Your task to perform on an android device: Open the phone app and click the voicemail tab. Image 0: 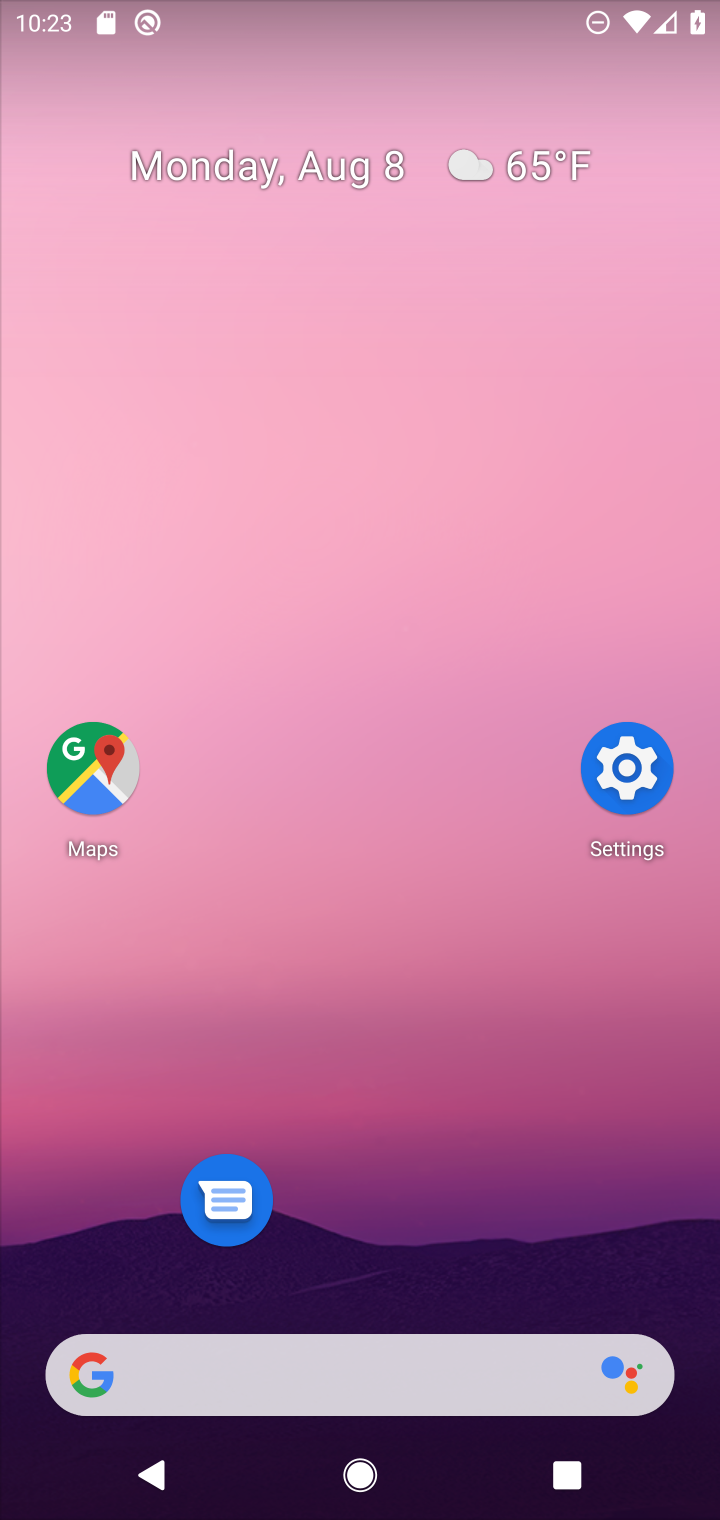
Step 0: press home button
Your task to perform on an android device: Open the phone app and click the voicemail tab. Image 1: 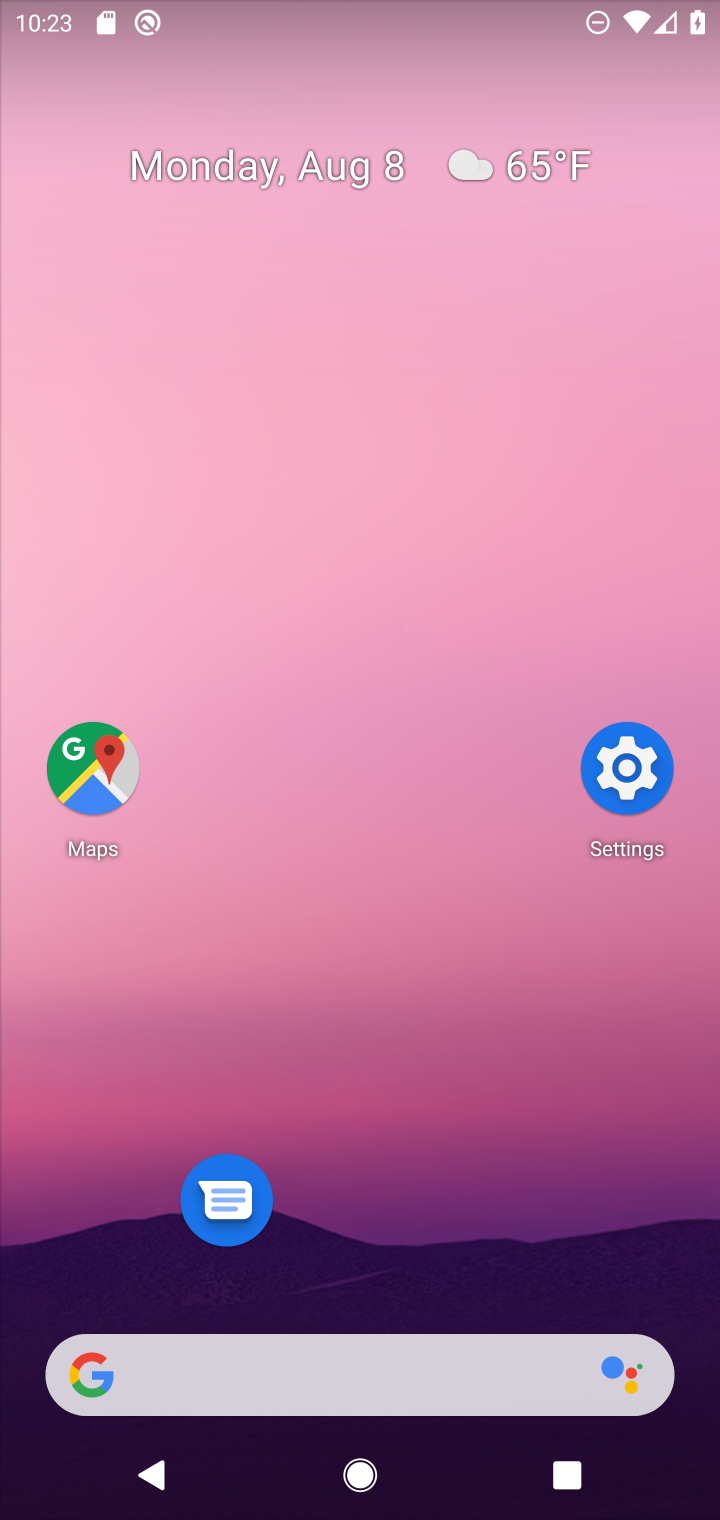
Step 1: drag from (399, 1241) to (569, 259)
Your task to perform on an android device: Open the phone app and click the voicemail tab. Image 2: 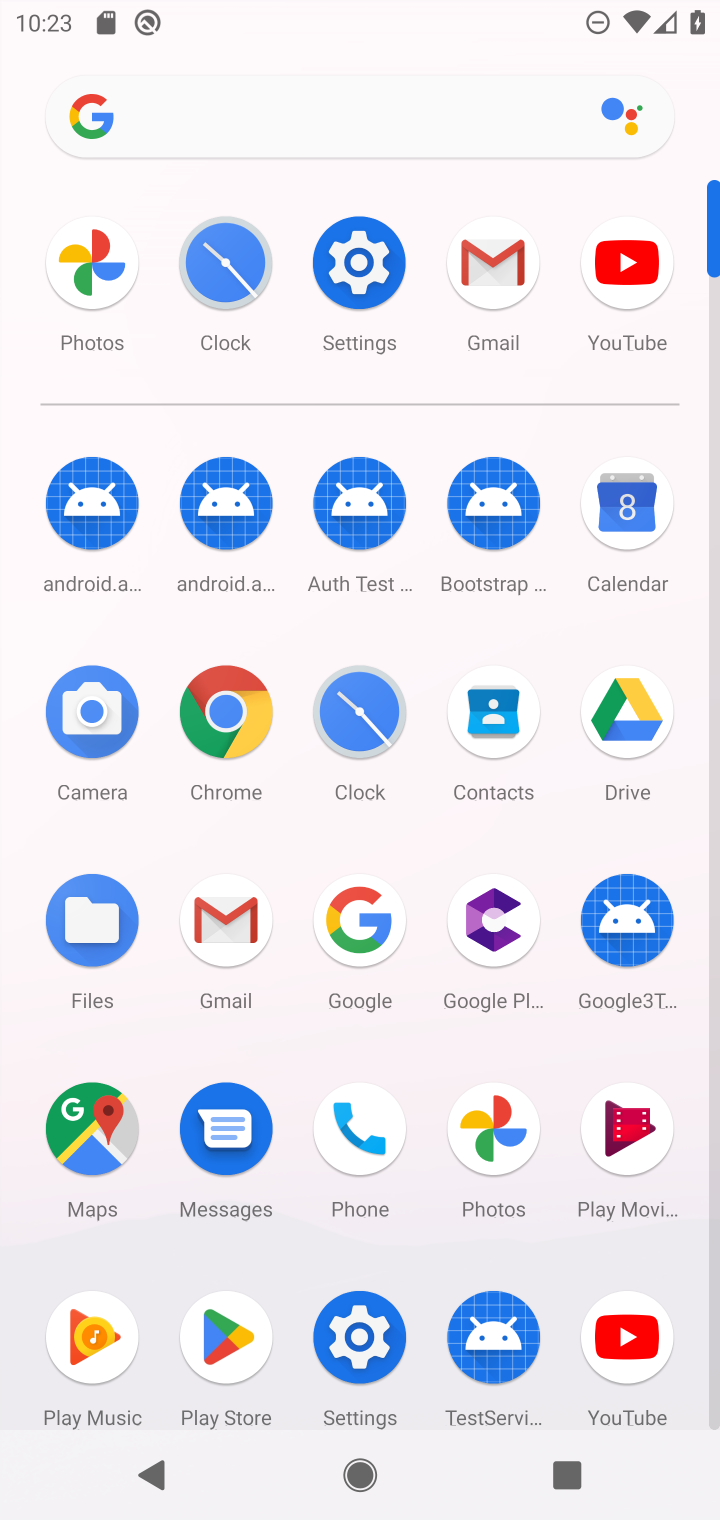
Step 2: click (348, 1127)
Your task to perform on an android device: Open the phone app and click the voicemail tab. Image 3: 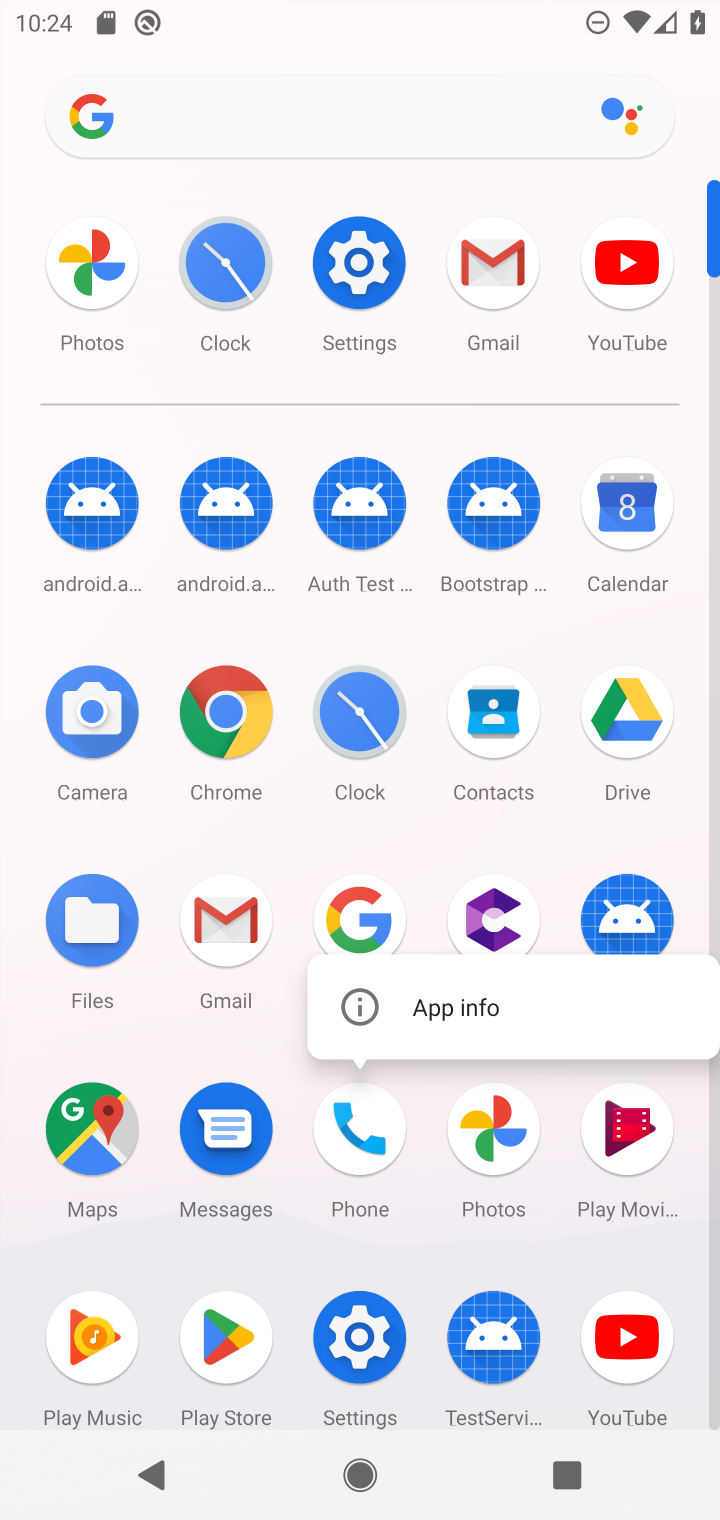
Step 3: click (348, 1124)
Your task to perform on an android device: Open the phone app and click the voicemail tab. Image 4: 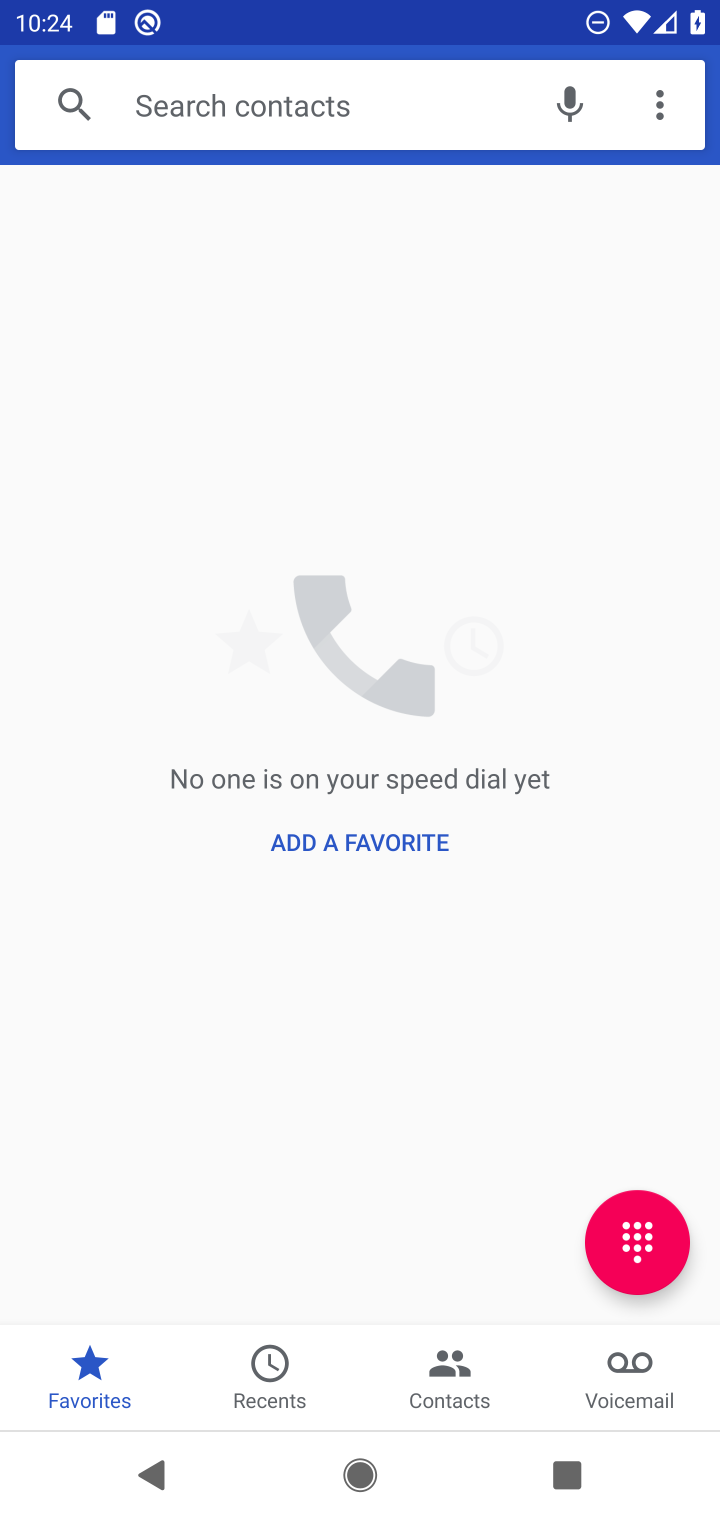
Step 4: click (619, 1378)
Your task to perform on an android device: Open the phone app and click the voicemail tab. Image 5: 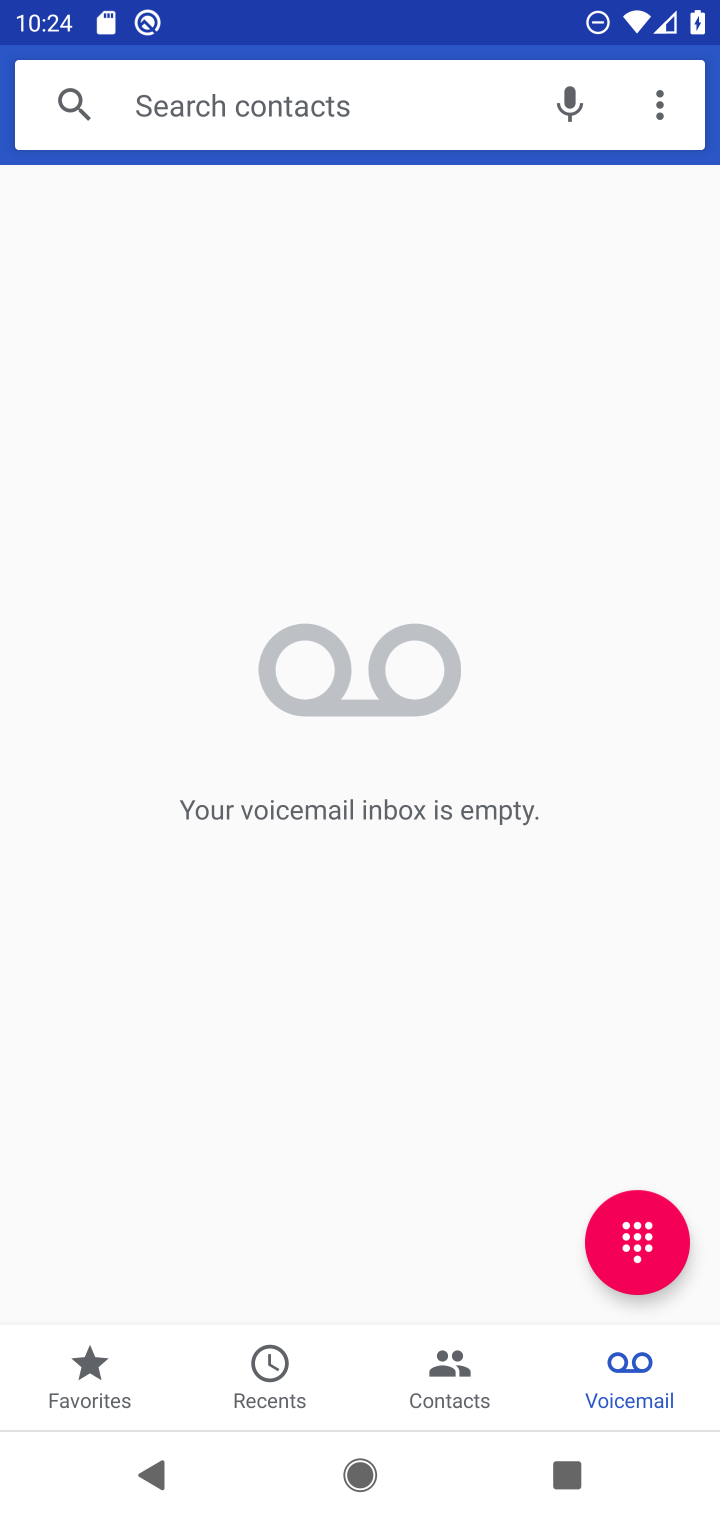
Step 5: task complete